Your task to perform on an android device: set the stopwatch Image 0: 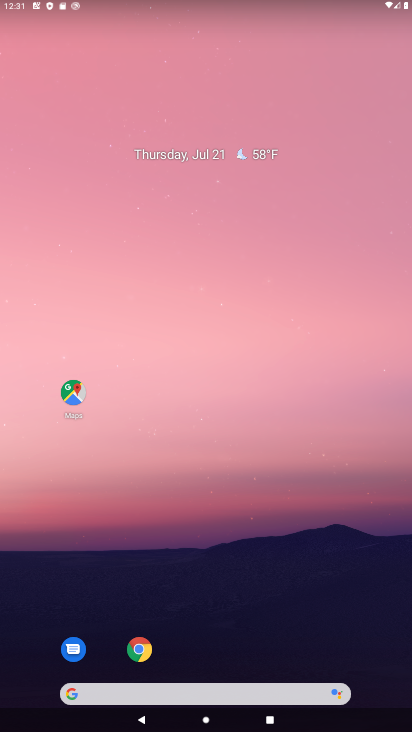
Step 0: drag from (386, 668) to (347, 126)
Your task to perform on an android device: set the stopwatch Image 1: 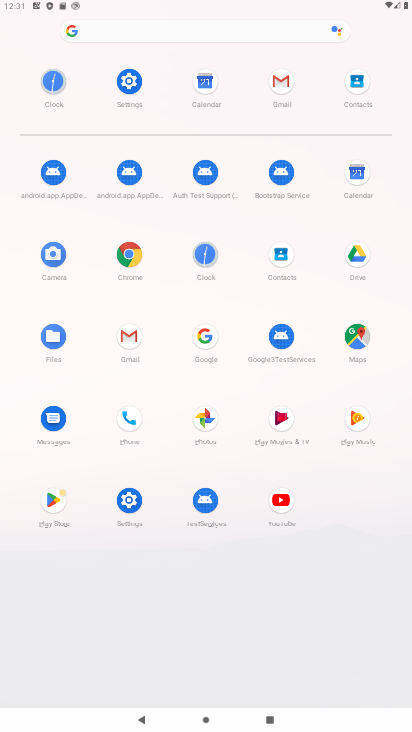
Step 1: click (206, 253)
Your task to perform on an android device: set the stopwatch Image 2: 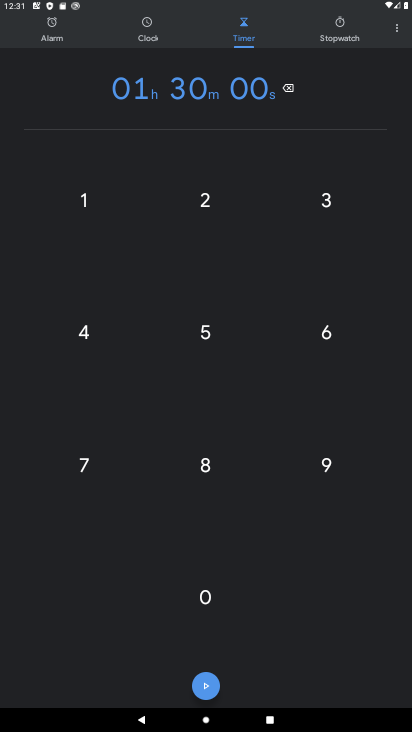
Step 2: click (338, 25)
Your task to perform on an android device: set the stopwatch Image 3: 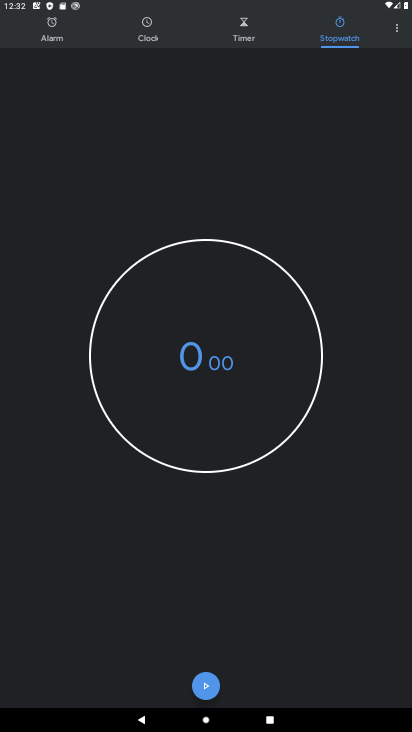
Step 3: task complete